Your task to perform on an android device: make emails show in primary in the gmail app Image 0: 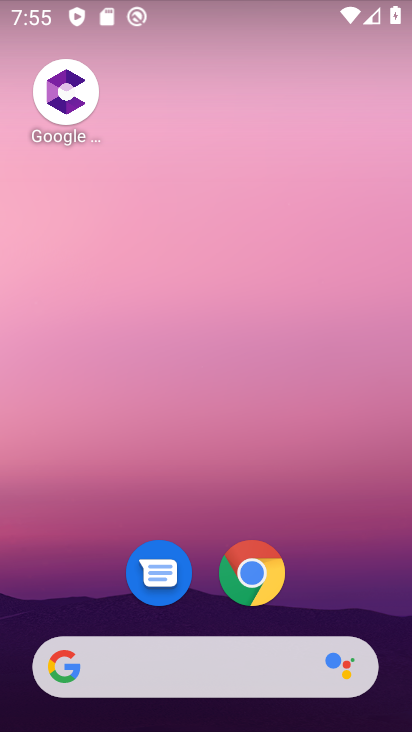
Step 0: drag from (58, 622) to (185, 117)
Your task to perform on an android device: make emails show in primary in the gmail app Image 1: 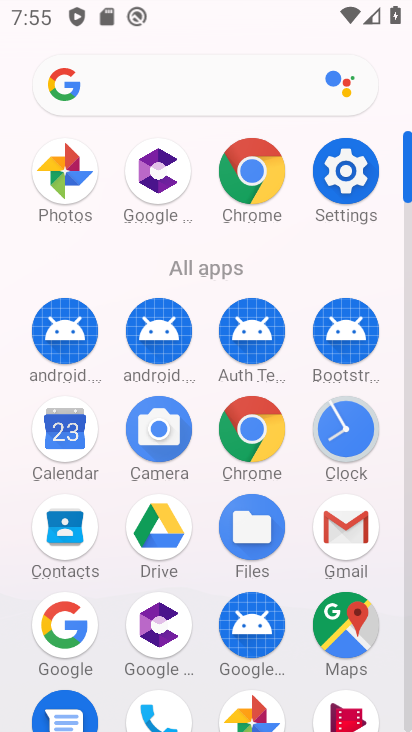
Step 1: click (339, 528)
Your task to perform on an android device: make emails show in primary in the gmail app Image 2: 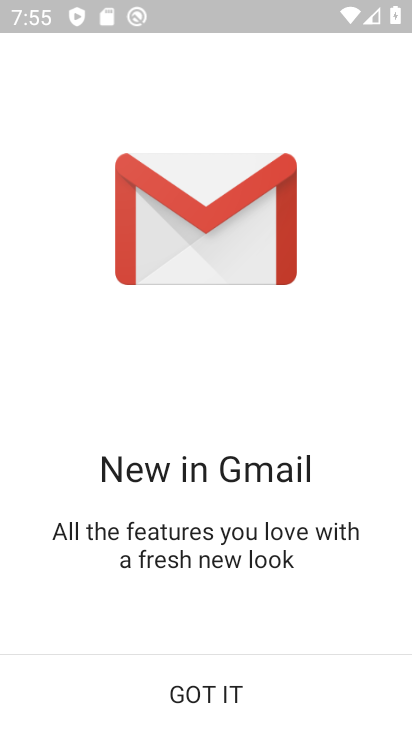
Step 2: click (212, 674)
Your task to perform on an android device: make emails show in primary in the gmail app Image 3: 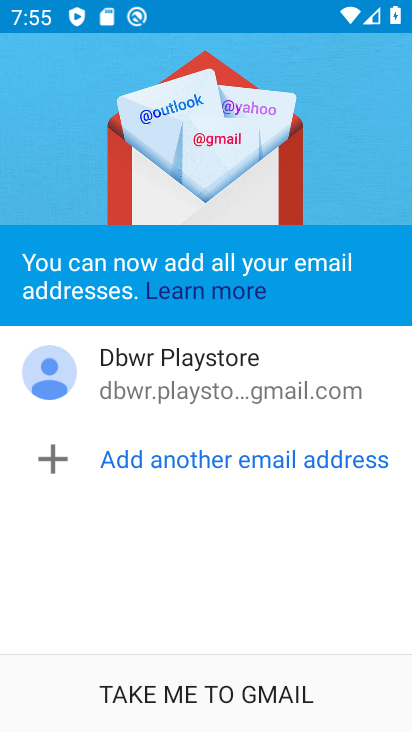
Step 3: click (212, 696)
Your task to perform on an android device: make emails show in primary in the gmail app Image 4: 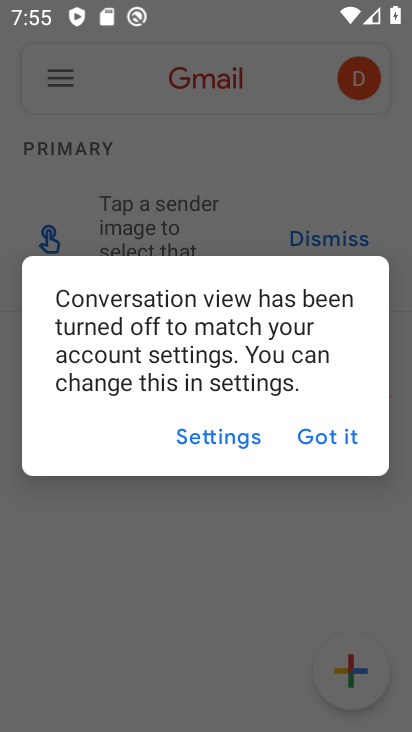
Step 4: click (344, 457)
Your task to perform on an android device: make emails show in primary in the gmail app Image 5: 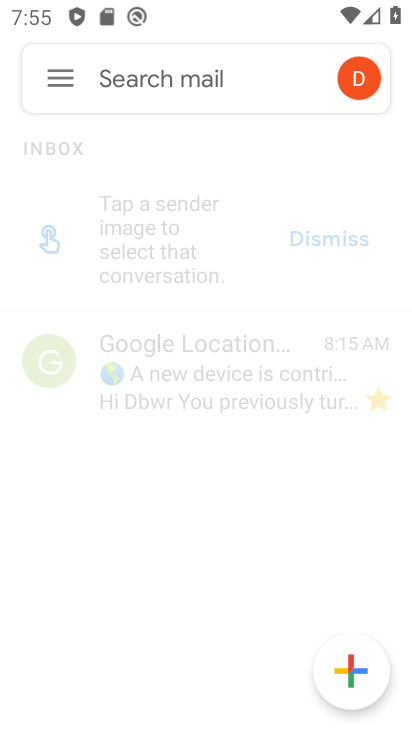
Step 5: click (66, 73)
Your task to perform on an android device: make emails show in primary in the gmail app Image 6: 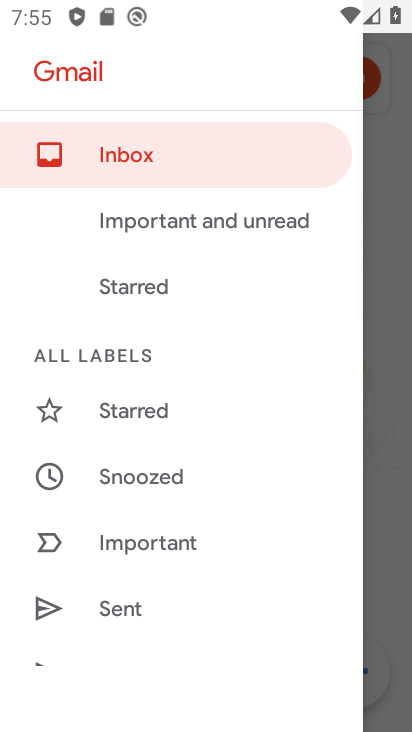
Step 6: drag from (146, 612) to (281, 71)
Your task to perform on an android device: make emails show in primary in the gmail app Image 7: 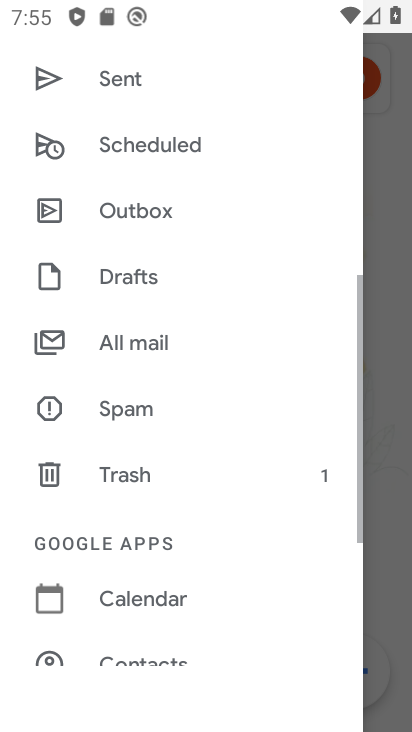
Step 7: drag from (157, 620) to (263, 141)
Your task to perform on an android device: make emails show in primary in the gmail app Image 8: 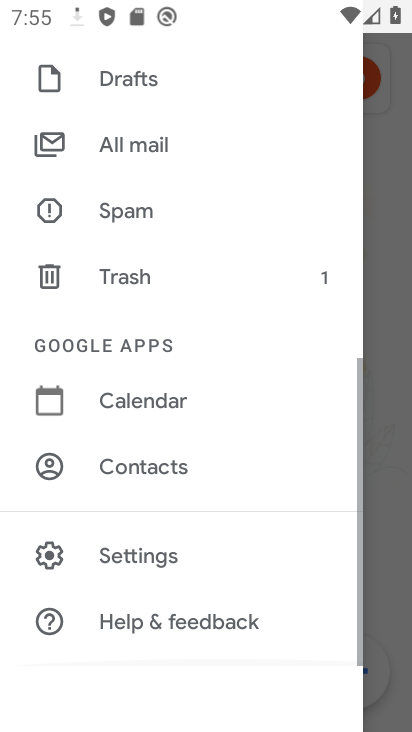
Step 8: click (195, 578)
Your task to perform on an android device: make emails show in primary in the gmail app Image 9: 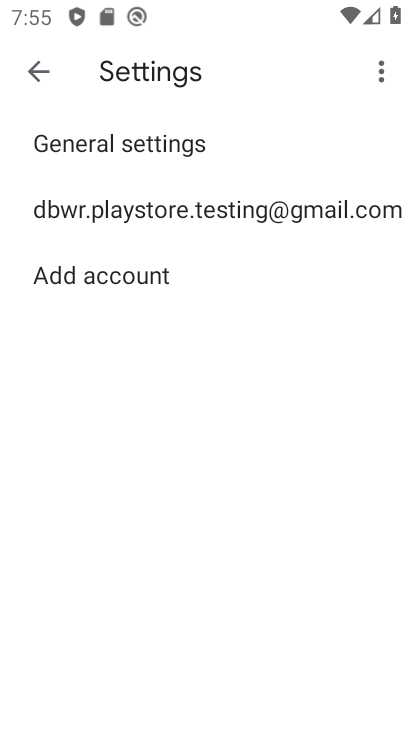
Step 9: click (273, 221)
Your task to perform on an android device: make emails show in primary in the gmail app Image 10: 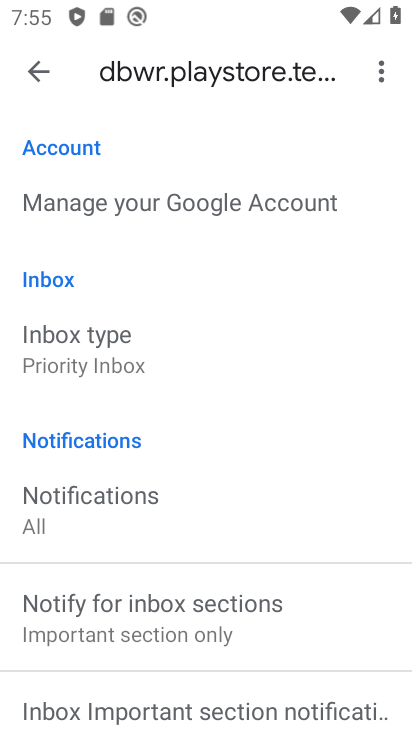
Step 10: click (210, 365)
Your task to perform on an android device: make emails show in primary in the gmail app Image 11: 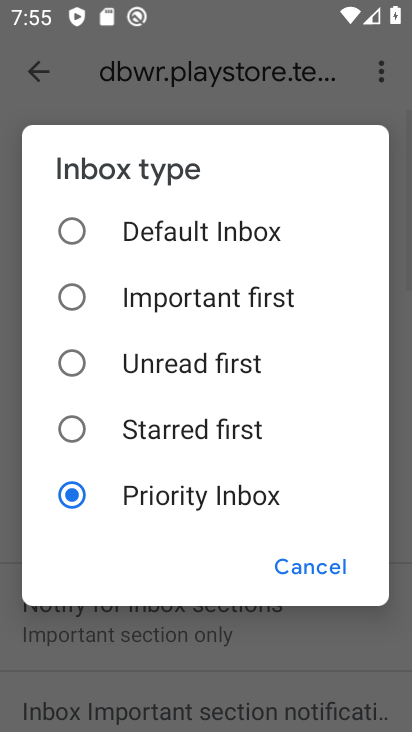
Step 11: click (239, 228)
Your task to perform on an android device: make emails show in primary in the gmail app Image 12: 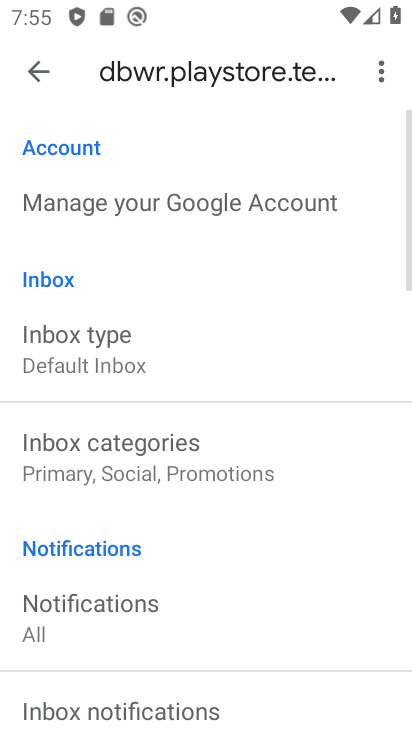
Step 12: click (211, 478)
Your task to perform on an android device: make emails show in primary in the gmail app Image 13: 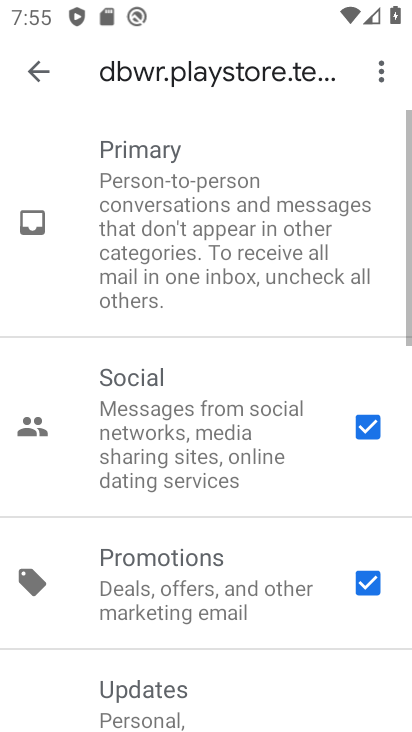
Step 13: drag from (190, 660) to (252, 224)
Your task to perform on an android device: make emails show in primary in the gmail app Image 14: 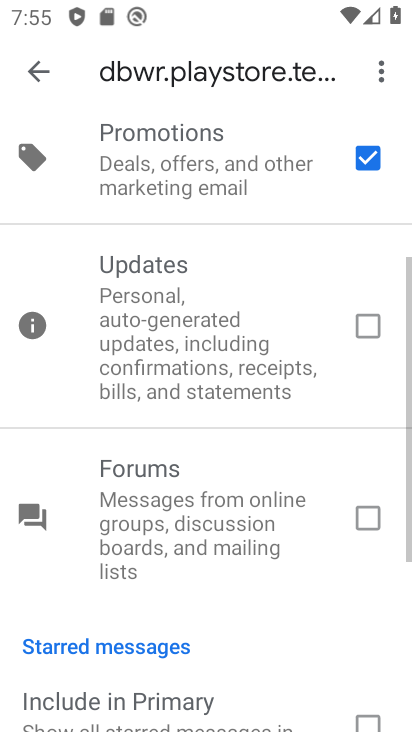
Step 14: drag from (258, 622) to (332, 265)
Your task to perform on an android device: make emails show in primary in the gmail app Image 15: 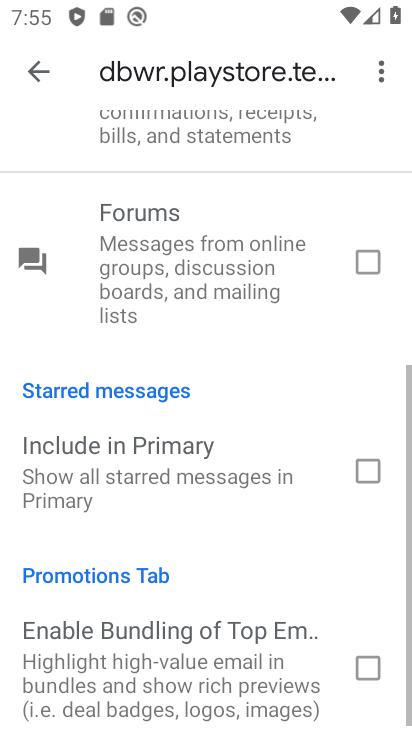
Step 15: click (384, 455)
Your task to perform on an android device: make emails show in primary in the gmail app Image 16: 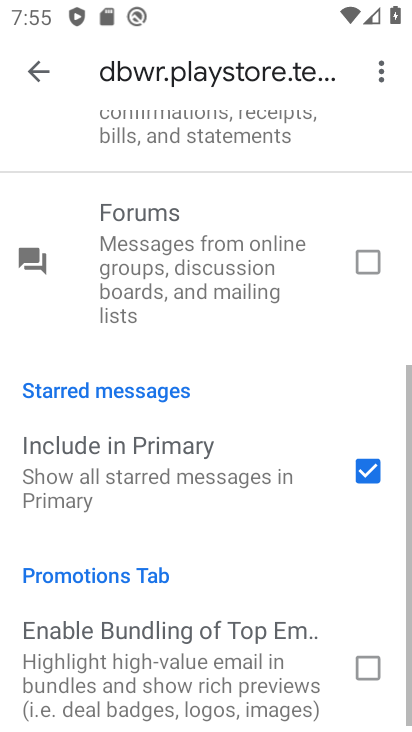
Step 16: task complete